Your task to perform on an android device: install app "Google Chat" Image 0: 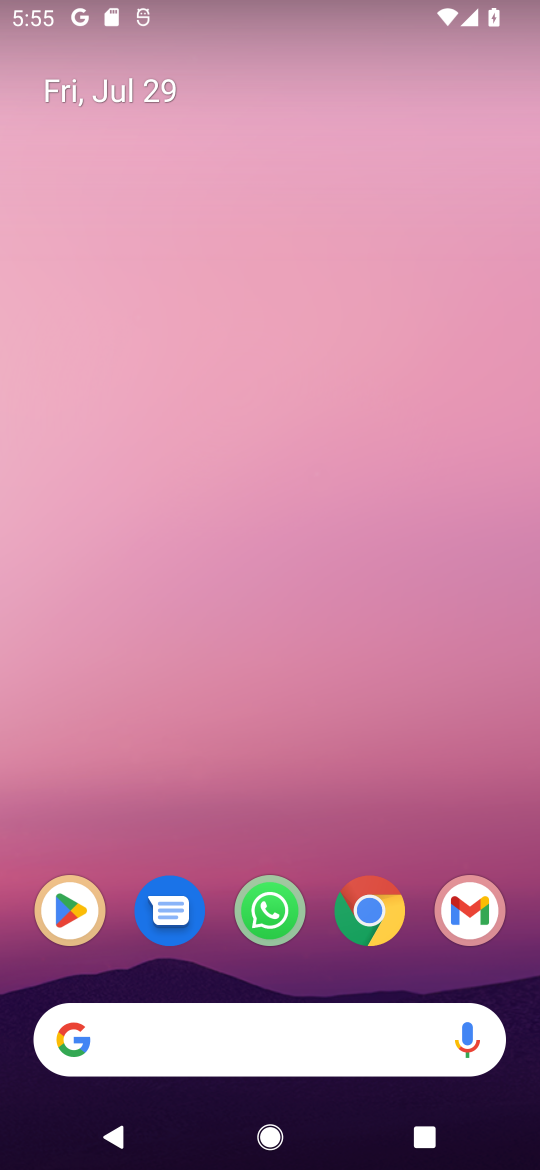
Step 0: click (71, 905)
Your task to perform on an android device: install app "Google Chat" Image 1: 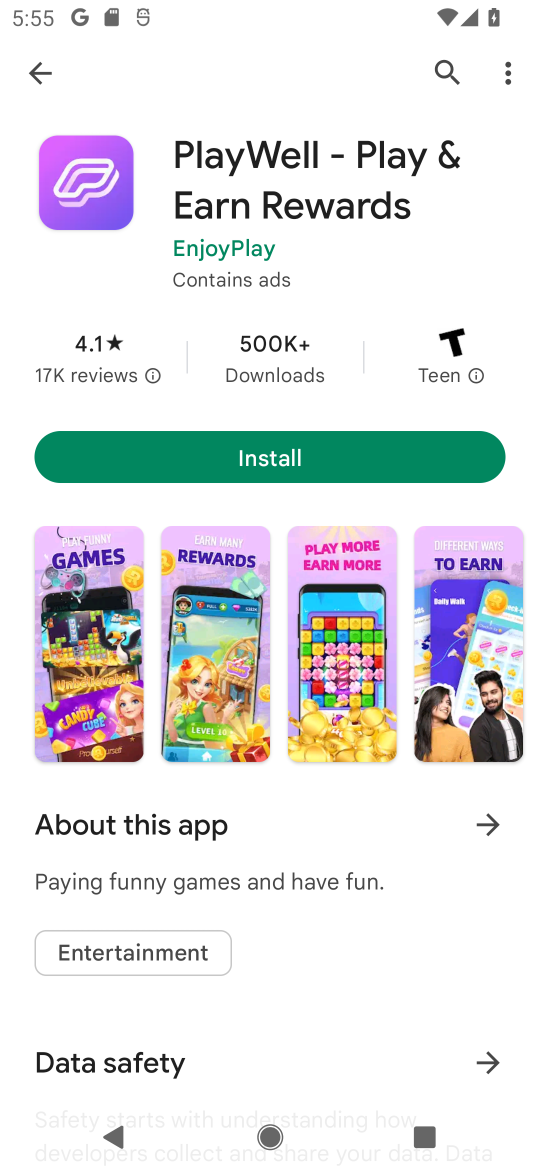
Step 1: click (438, 64)
Your task to perform on an android device: install app "Google Chat" Image 2: 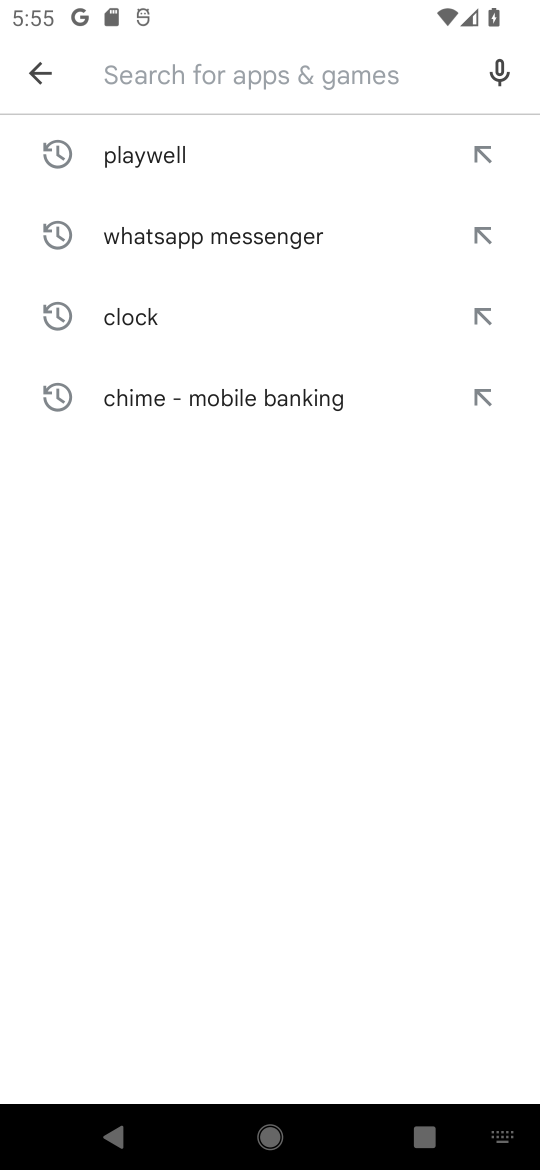
Step 2: type "google chat"
Your task to perform on an android device: install app "Google Chat" Image 3: 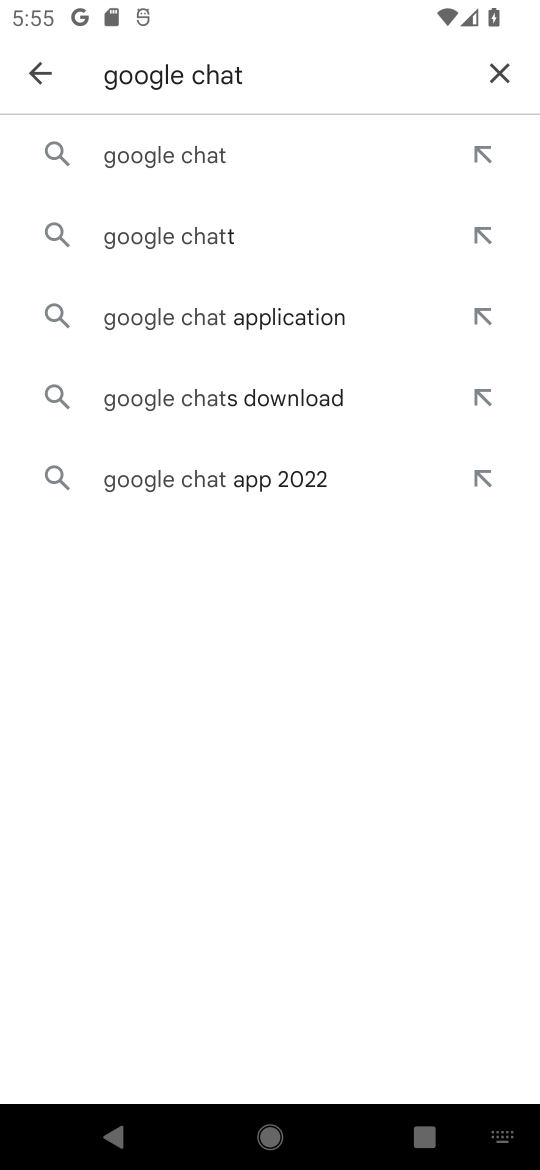
Step 3: click (266, 153)
Your task to perform on an android device: install app "Google Chat" Image 4: 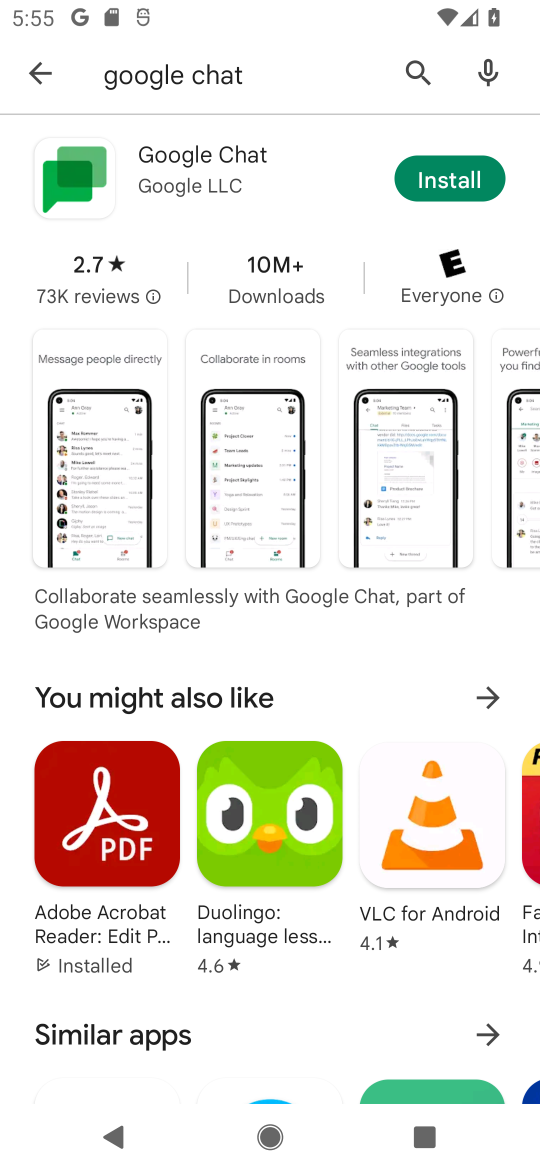
Step 4: click (266, 153)
Your task to perform on an android device: install app "Google Chat" Image 5: 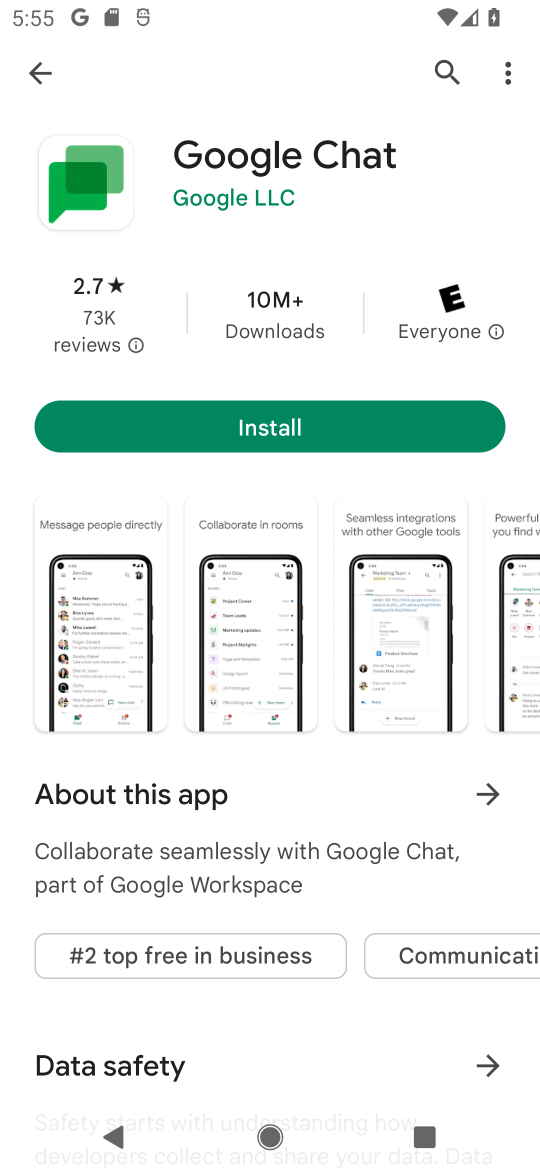
Step 5: click (352, 433)
Your task to perform on an android device: install app "Google Chat" Image 6: 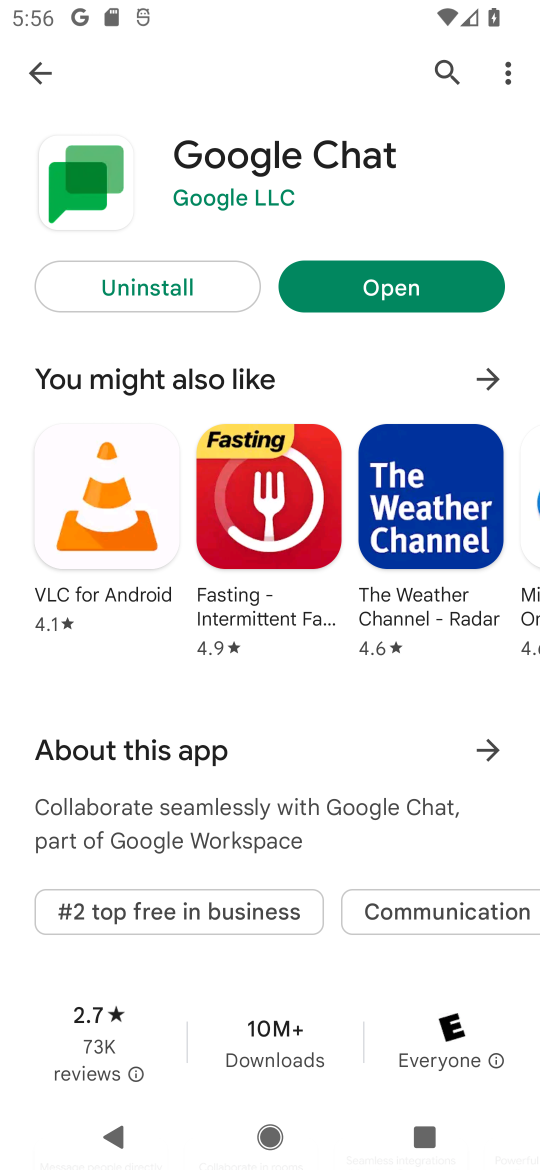
Step 6: task complete